Your task to perform on an android device: Go to sound settings Image 0: 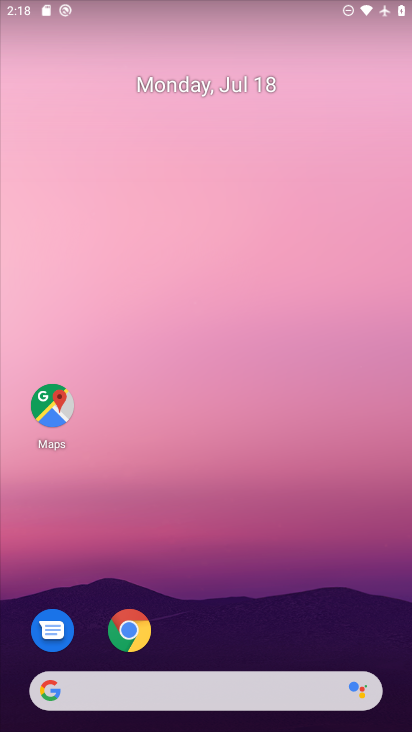
Step 0: press home button
Your task to perform on an android device: Go to sound settings Image 1: 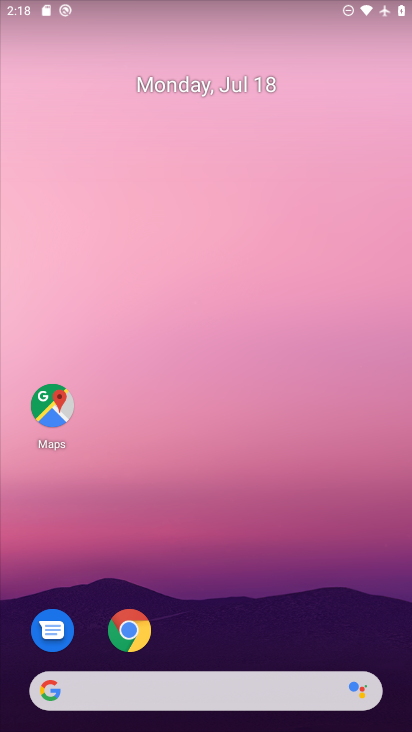
Step 1: drag from (247, 650) to (266, 25)
Your task to perform on an android device: Go to sound settings Image 2: 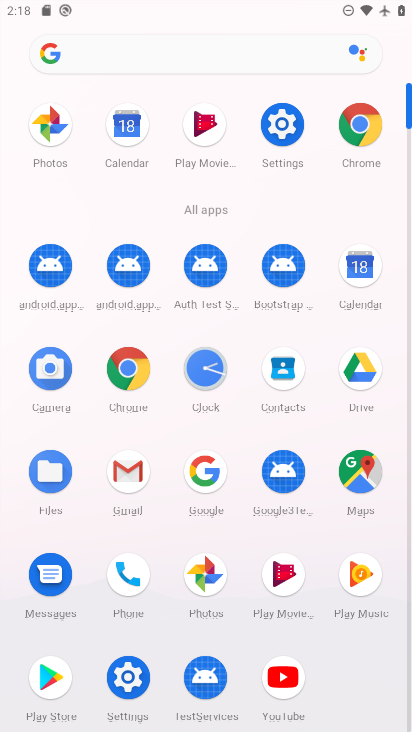
Step 2: click (278, 127)
Your task to perform on an android device: Go to sound settings Image 3: 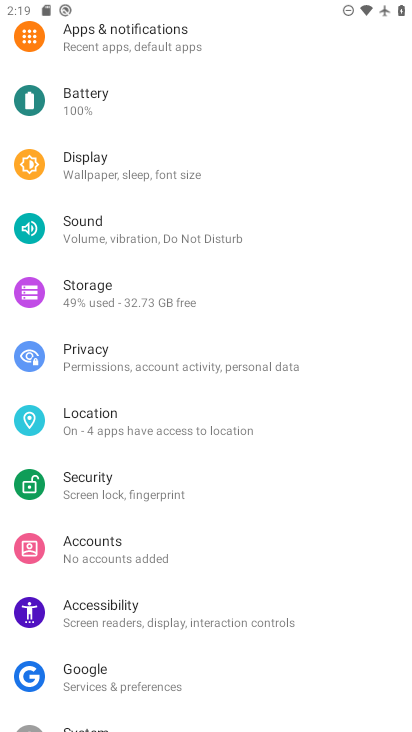
Step 3: click (78, 219)
Your task to perform on an android device: Go to sound settings Image 4: 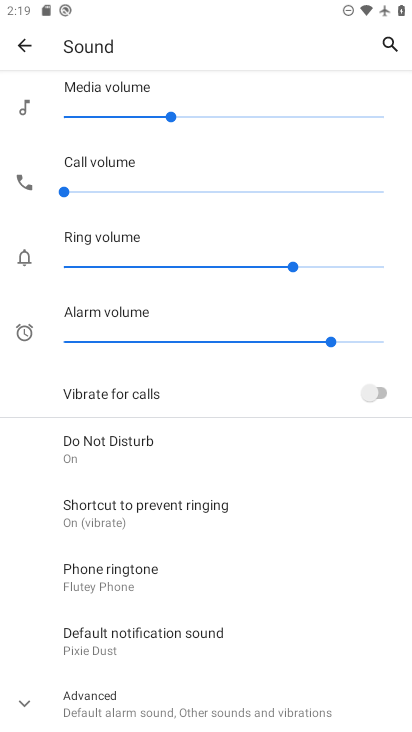
Step 4: task complete